Your task to perform on an android device: Show me recent news Image 0: 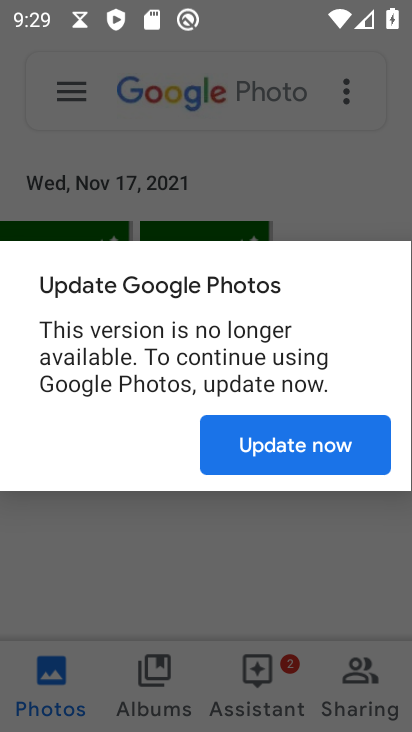
Step 0: press home button
Your task to perform on an android device: Show me recent news Image 1: 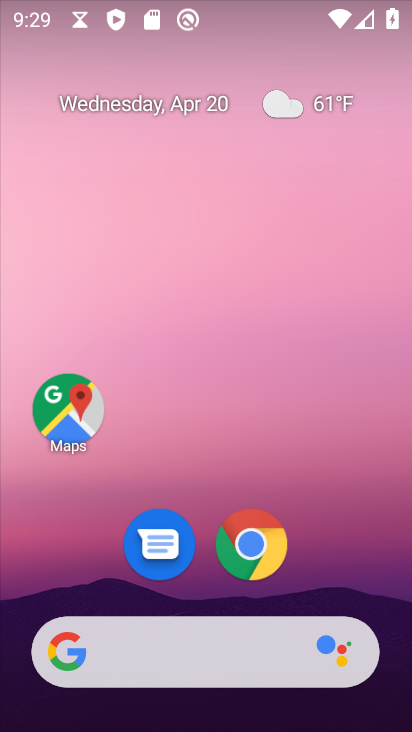
Step 1: task complete